Your task to perform on an android device: Search for vegetarian restaurants on Maps Image 0: 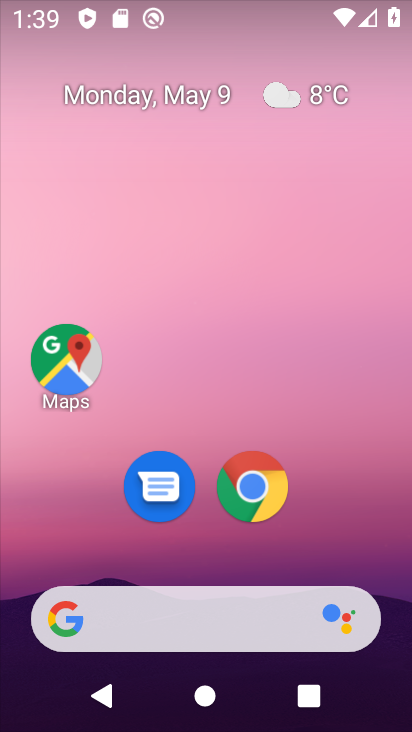
Step 0: click (65, 376)
Your task to perform on an android device: Search for vegetarian restaurants on Maps Image 1: 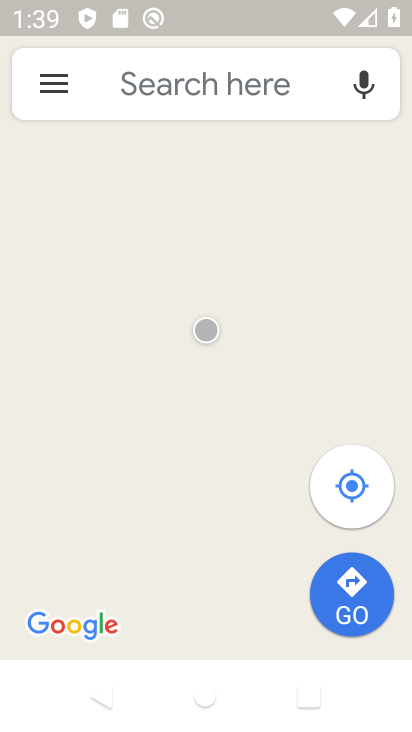
Step 1: click (176, 79)
Your task to perform on an android device: Search for vegetarian restaurants on Maps Image 2: 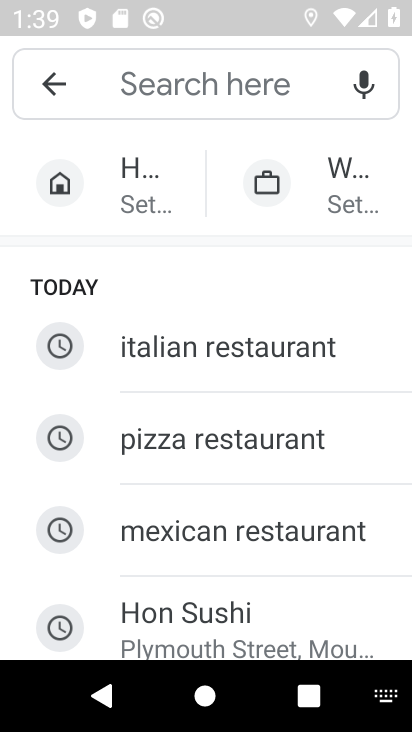
Step 2: drag from (306, 625) to (373, 445)
Your task to perform on an android device: Search for vegetarian restaurants on Maps Image 3: 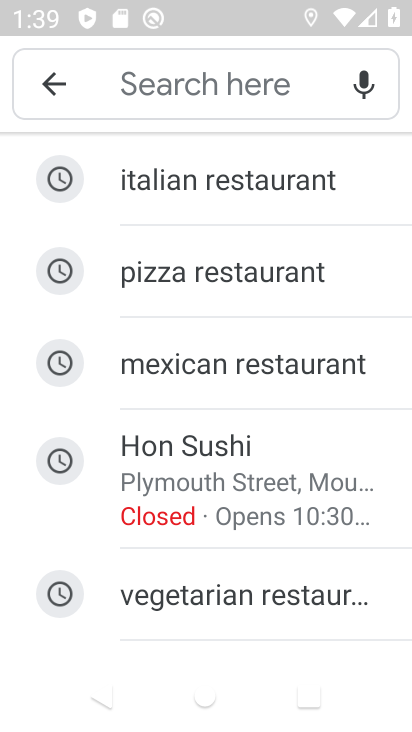
Step 3: click (299, 582)
Your task to perform on an android device: Search for vegetarian restaurants on Maps Image 4: 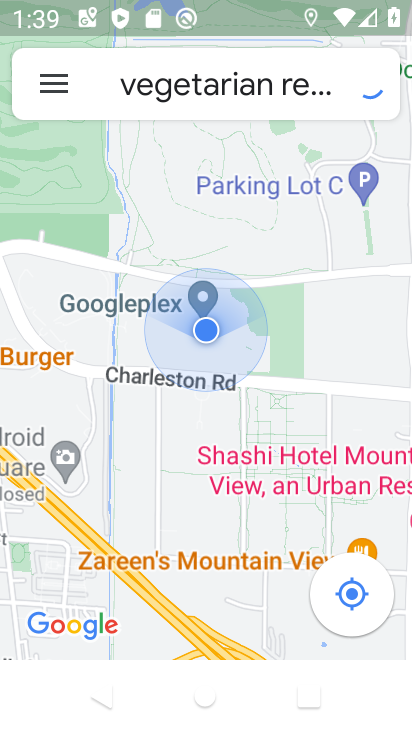
Step 4: drag from (285, 428) to (357, 292)
Your task to perform on an android device: Search for vegetarian restaurants on Maps Image 5: 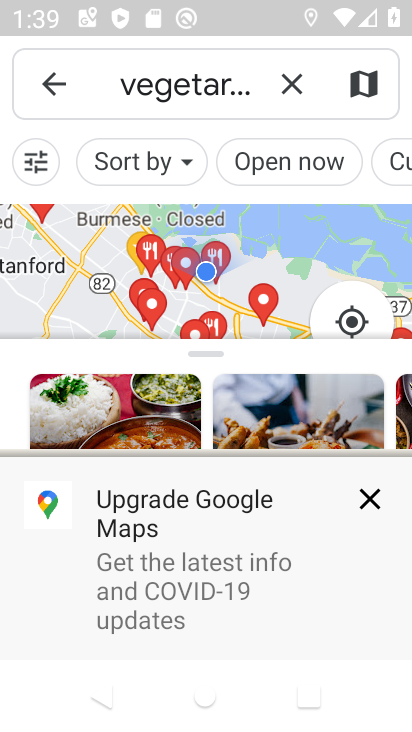
Step 5: click (367, 491)
Your task to perform on an android device: Search for vegetarian restaurants on Maps Image 6: 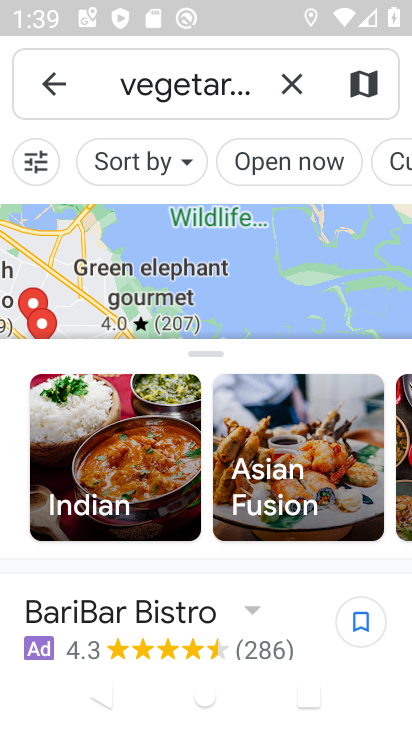
Step 6: task complete